Your task to perform on an android device: add a contact in the contacts app Image 0: 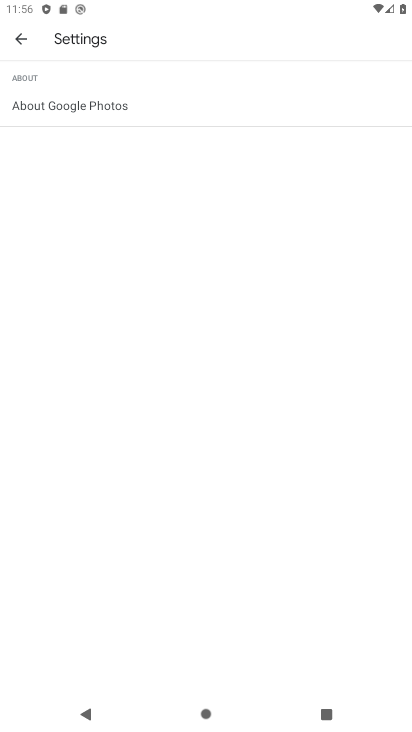
Step 0: press home button
Your task to perform on an android device: add a contact in the contacts app Image 1: 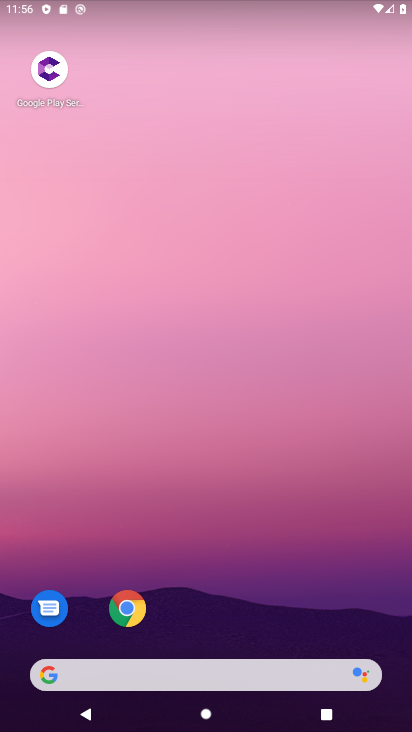
Step 1: drag from (211, 621) to (254, 6)
Your task to perform on an android device: add a contact in the contacts app Image 2: 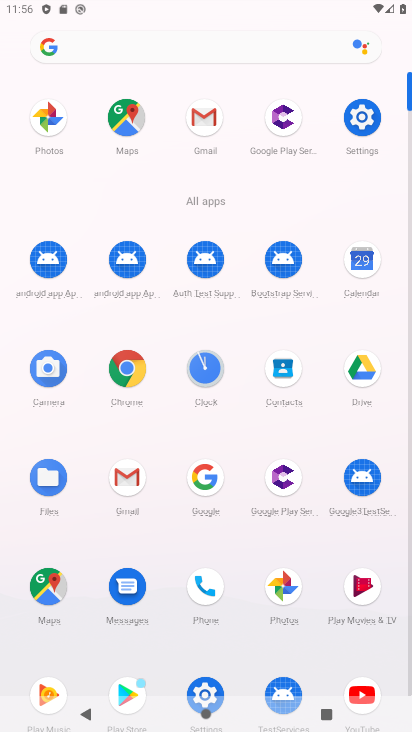
Step 2: click (282, 371)
Your task to perform on an android device: add a contact in the contacts app Image 3: 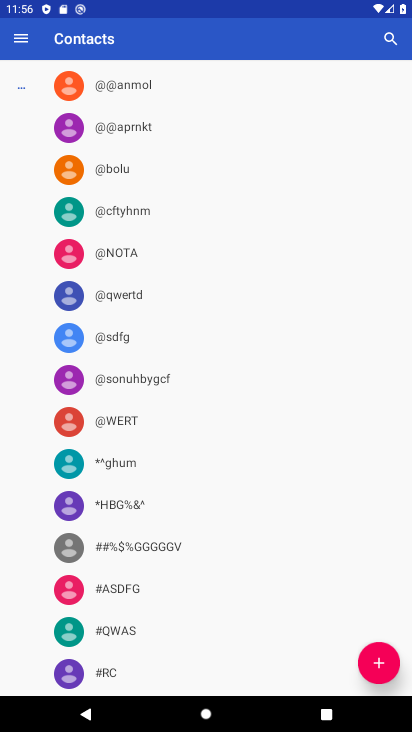
Step 3: click (387, 671)
Your task to perform on an android device: add a contact in the contacts app Image 4: 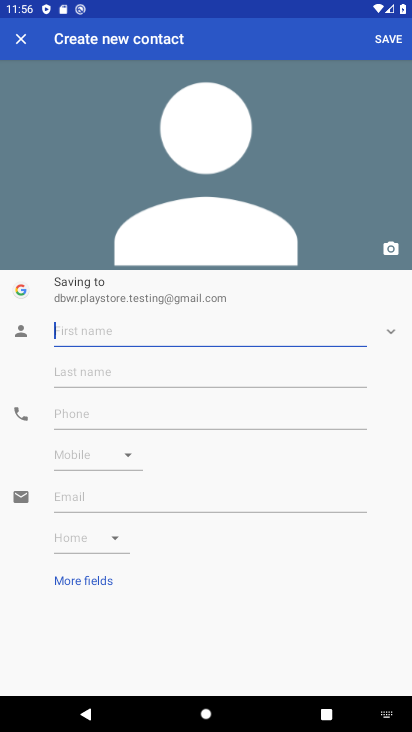
Step 4: type "#$%!"
Your task to perform on an android device: add a contact in the contacts app Image 5: 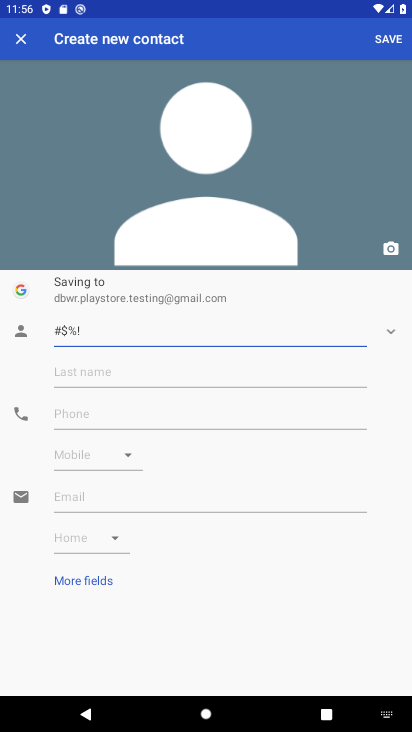
Step 5: click (380, 37)
Your task to perform on an android device: add a contact in the contacts app Image 6: 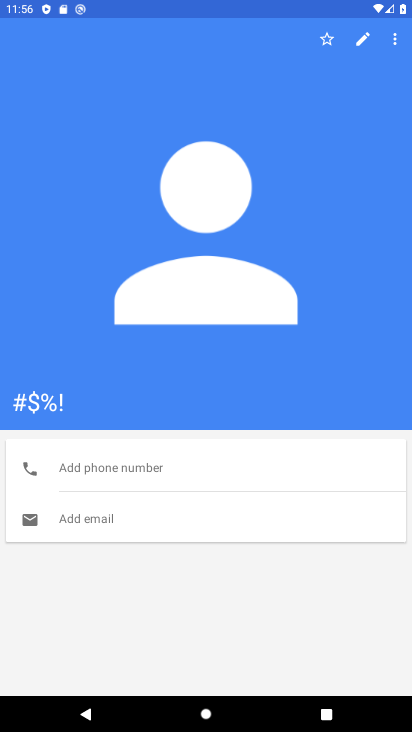
Step 6: task complete